Your task to perform on an android device: turn off location Image 0: 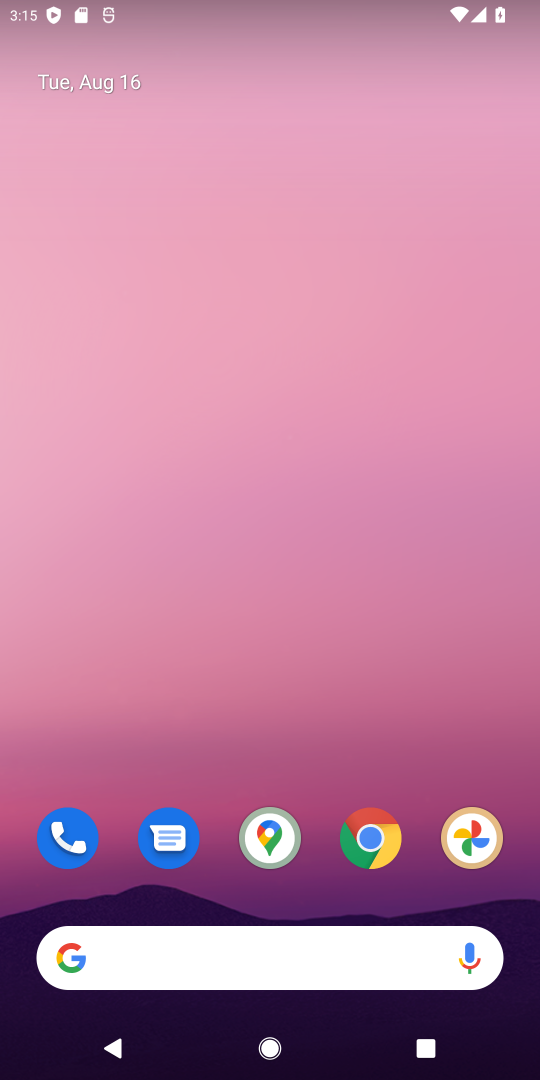
Step 0: drag from (289, 947) to (219, 25)
Your task to perform on an android device: turn off location Image 1: 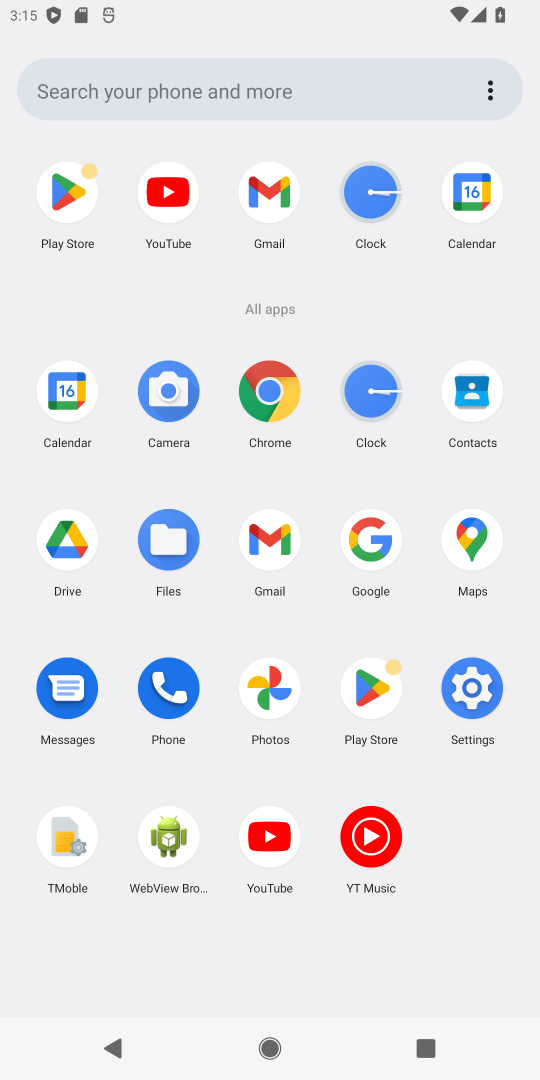
Step 1: click (471, 707)
Your task to perform on an android device: turn off location Image 2: 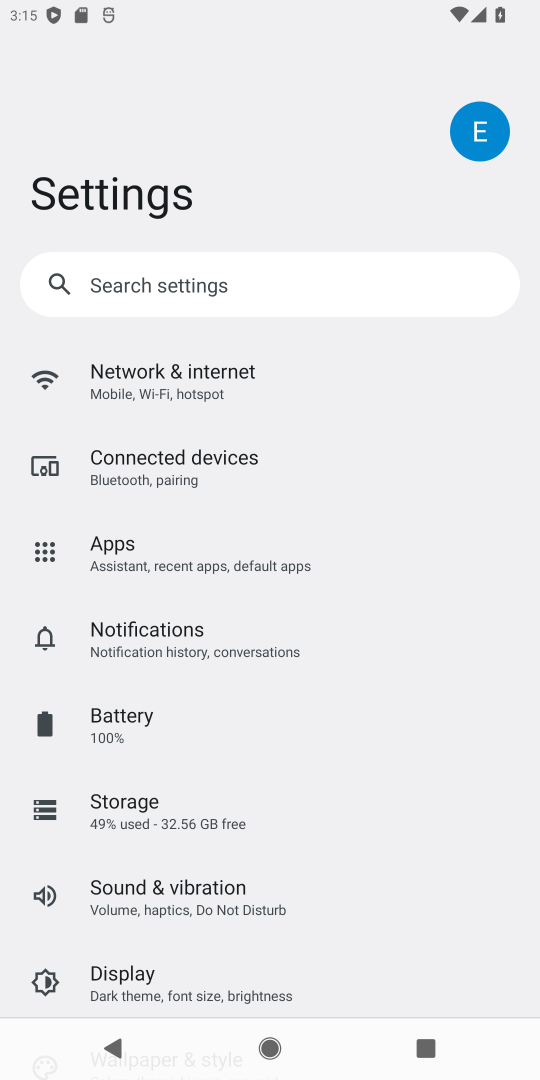
Step 2: drag from (107, 862) to (5, 175)
Your task to perform on an android device: turn off location Image 3: 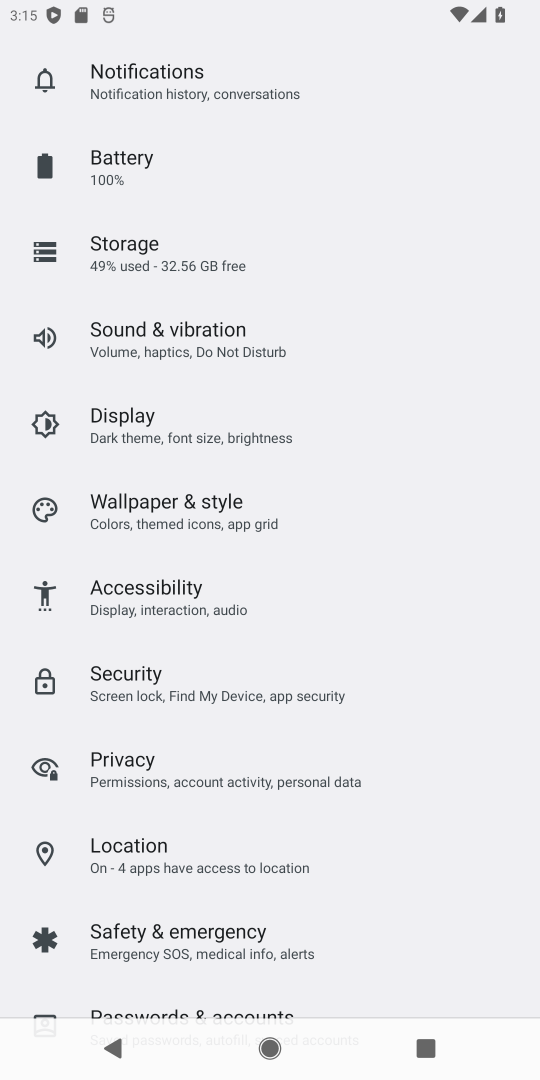
Step 3: click (141, 867)
Your task to perform on an android device: turn off location Image 4: 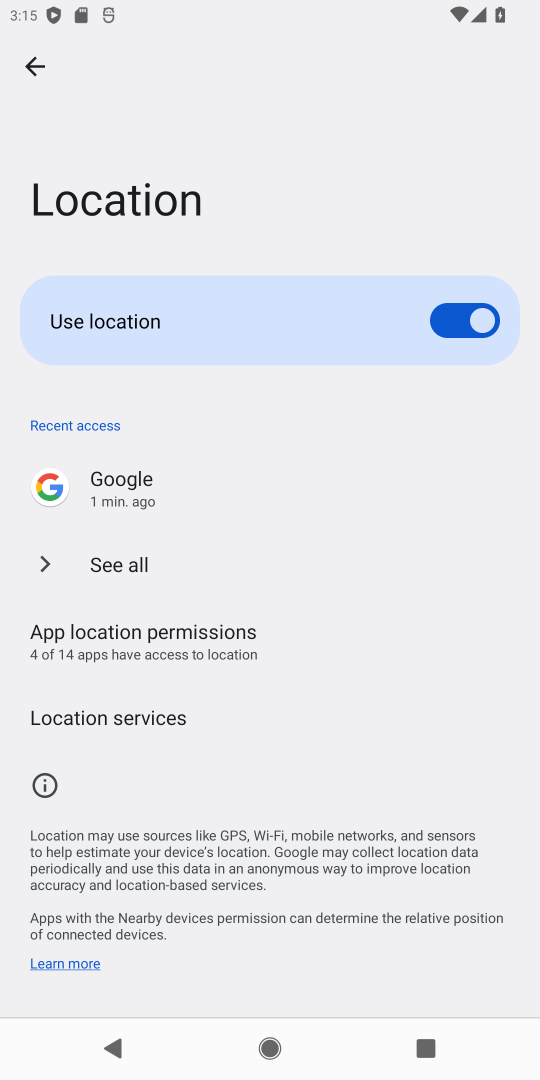
Step 4: click (475, 320)
Your task to perform on an android device: turn off location Image 5: 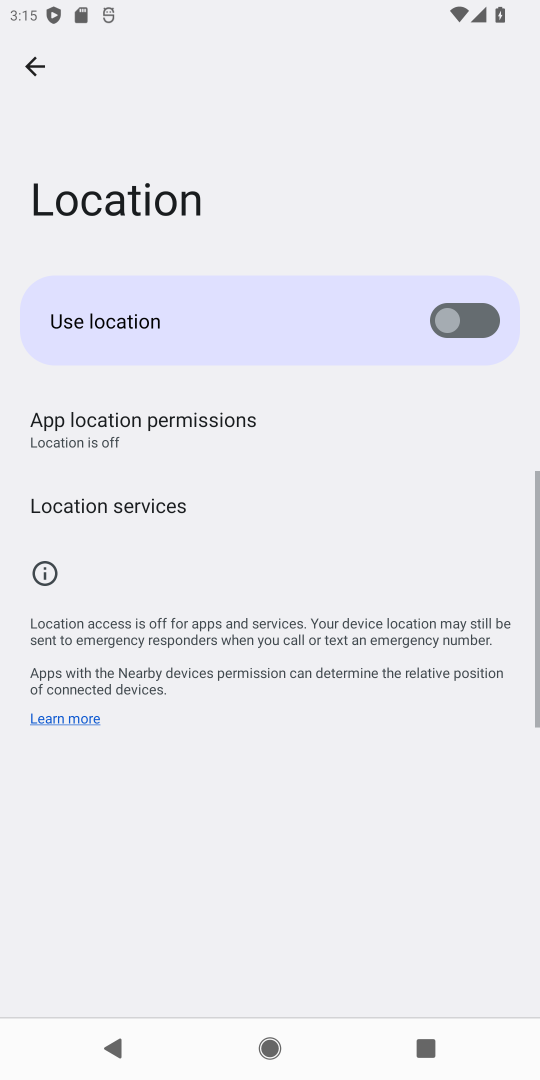
Step 5: task complete